Your task to perform on an android device: What's the weather today? Image 0: 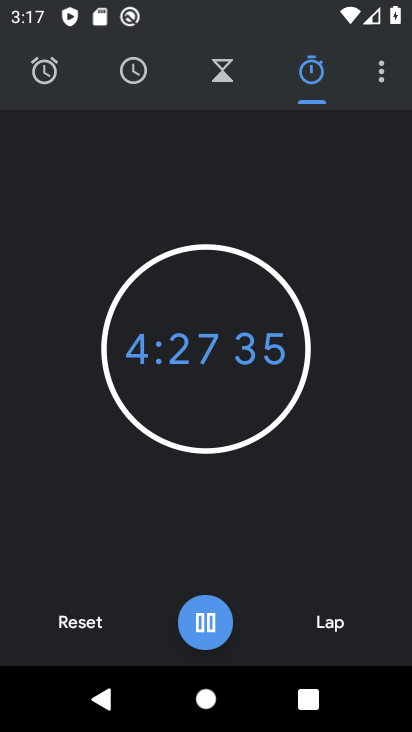
Step 0: press home button
Your task to perform on an android device: What's the weather today? Image 1: 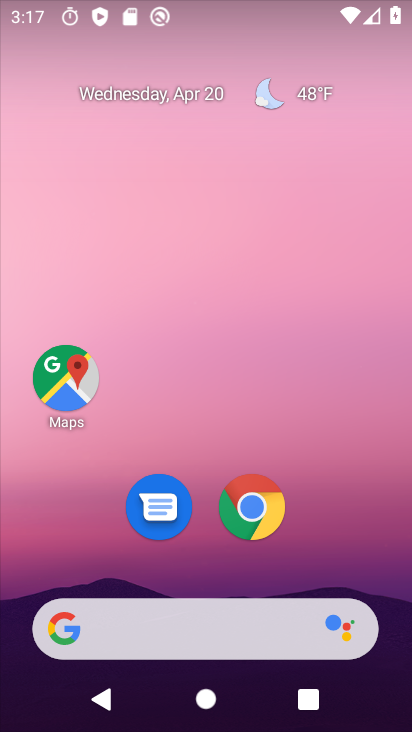
Step 1: drag from (230, 638) to (143, 102)
Your task to perform on an android device: What's the weather today? Image 2: 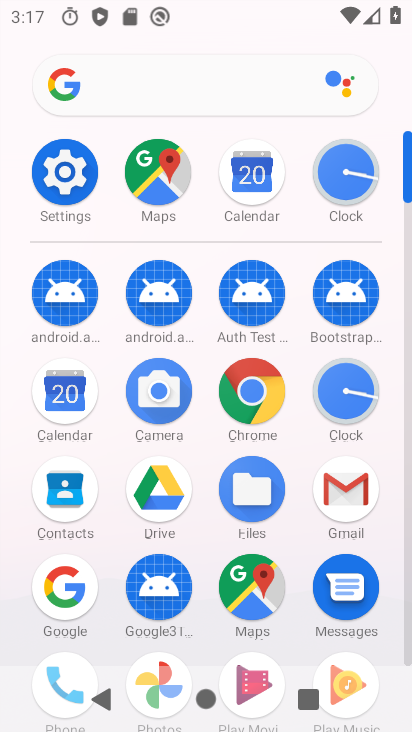
Step 2: click (80, 579)
Your task to perform on an android device: What's the weather today? Image 3: 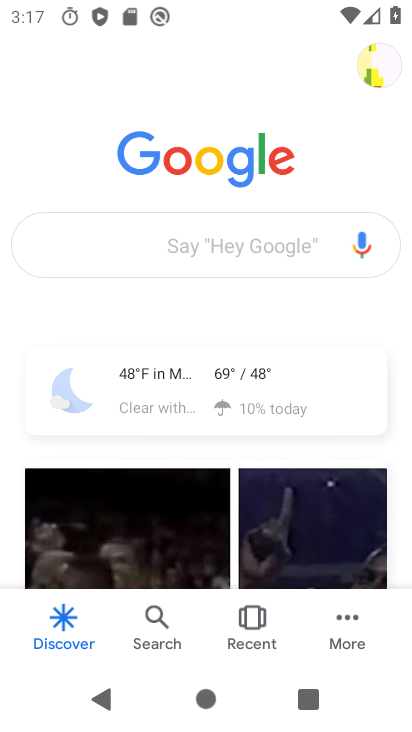
Step 3: click (131, 397)
Your task to perform on an android device: What's the weather today? Image 4: 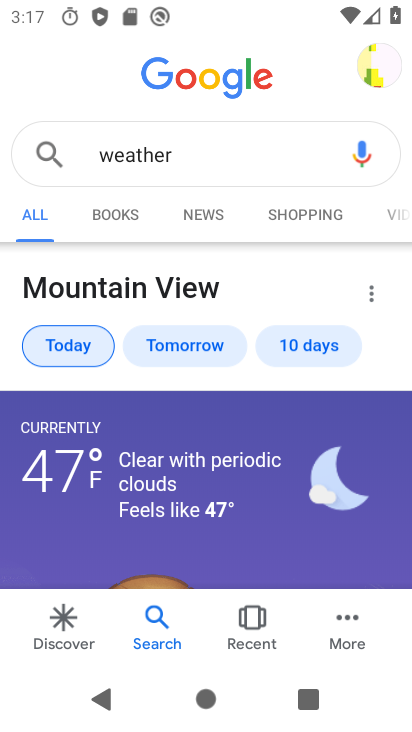
Step 4: task complete